Your task to perform on an android device: Open eBay Image 0: 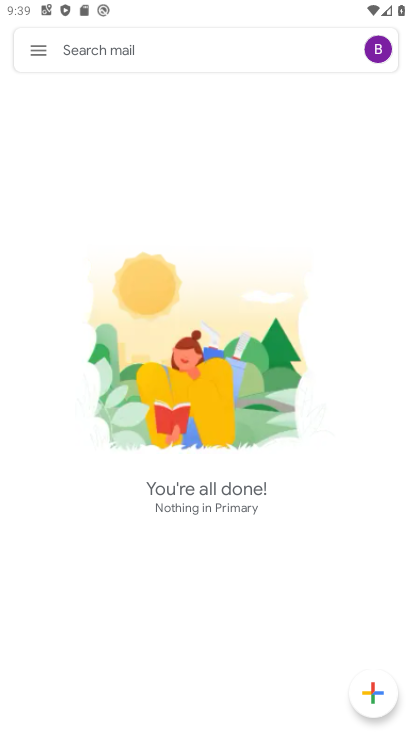
Step 0: press home button
Your task to perform on an android device: Open eBay Image 1: 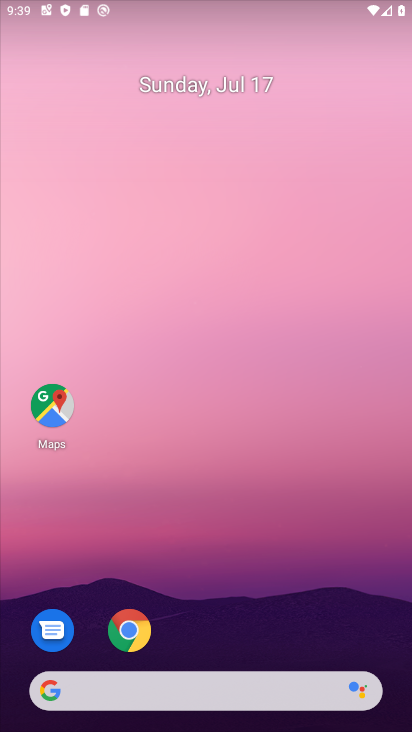
Step 1: drag from (251, 675) to (326, 28)
Your task to perform on an android device: Open eBay Image 2: 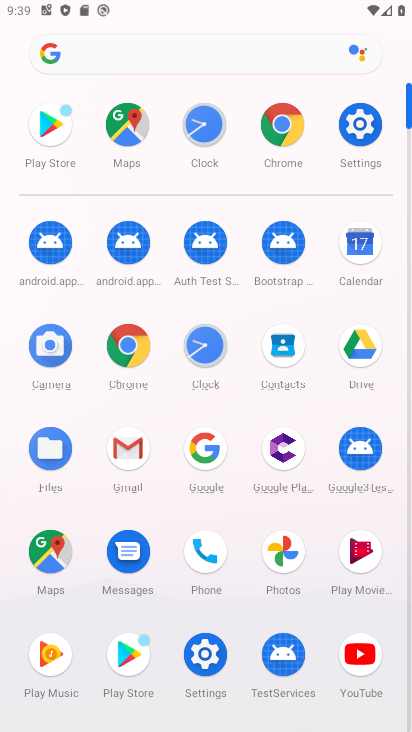
Step 2: click (120, 345)
Your task to perform on an android device: Open eBay Image 3: 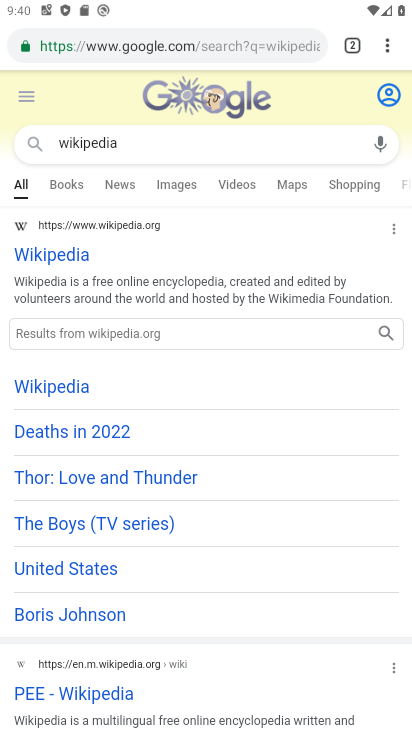
Step 3: click (160, 51)
Your task to perform on an android device: Open eBay Image 4: 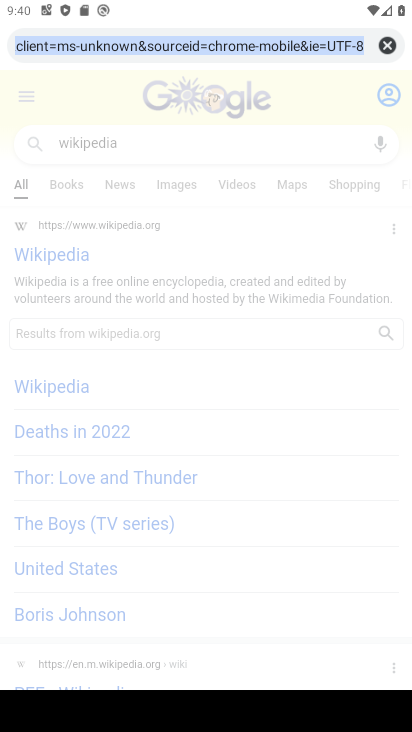
Step 4: type "ebay"
Your task to perform on an android device: Open eBay Image 5: 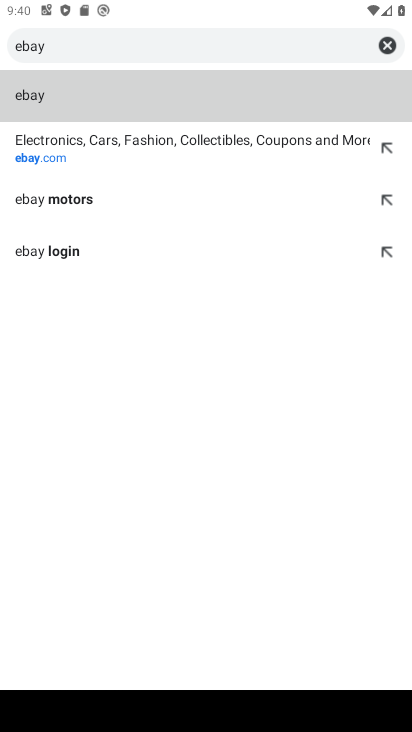
Step 5: click (235, 148)
Your task to perform on an android device: Open eBay Image 6: 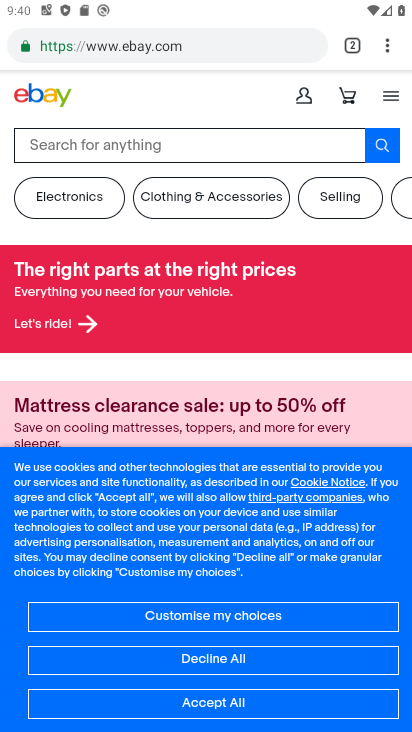
Step 6: task complete